Your task to perform on an android device: see creations saved in the google photos Image 0: 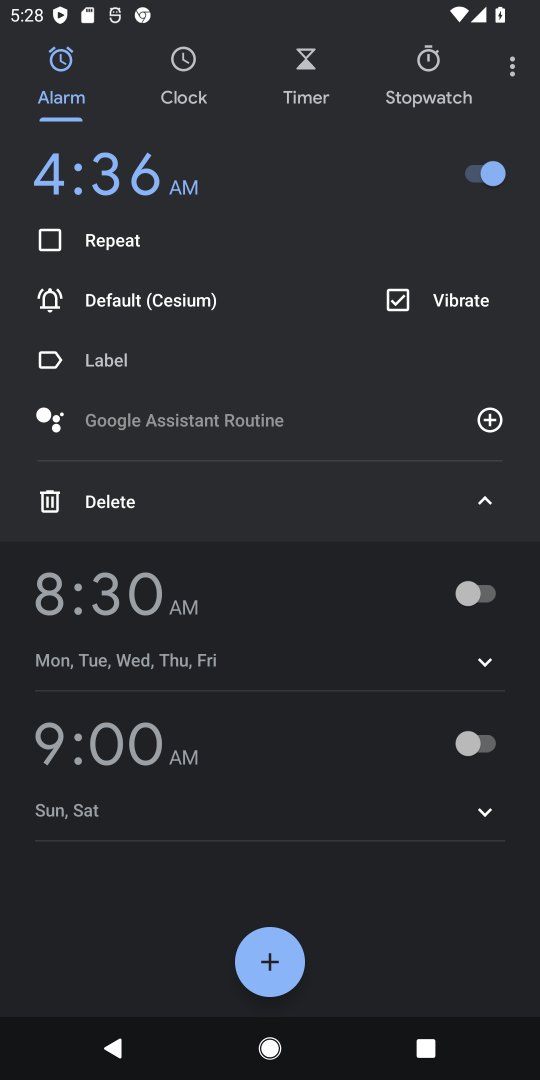
Step 0: press home button
Your task to perform on an android device: see creations saved in the google photos Image 1: 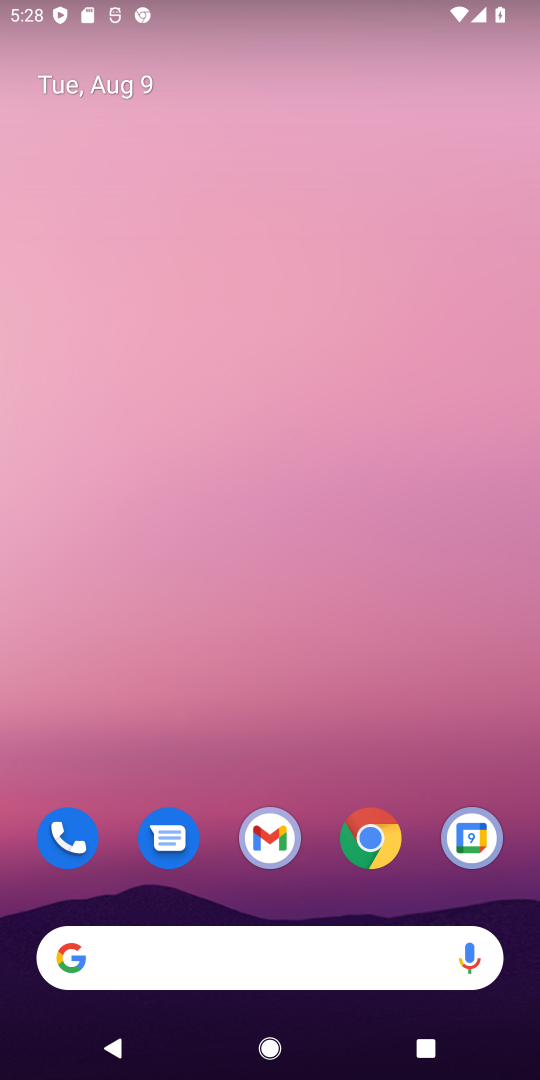
Step 1: drag from (411, 781) to (334, 103)
Your task to perform on an android device: see creations saved in the google photos Image 2: 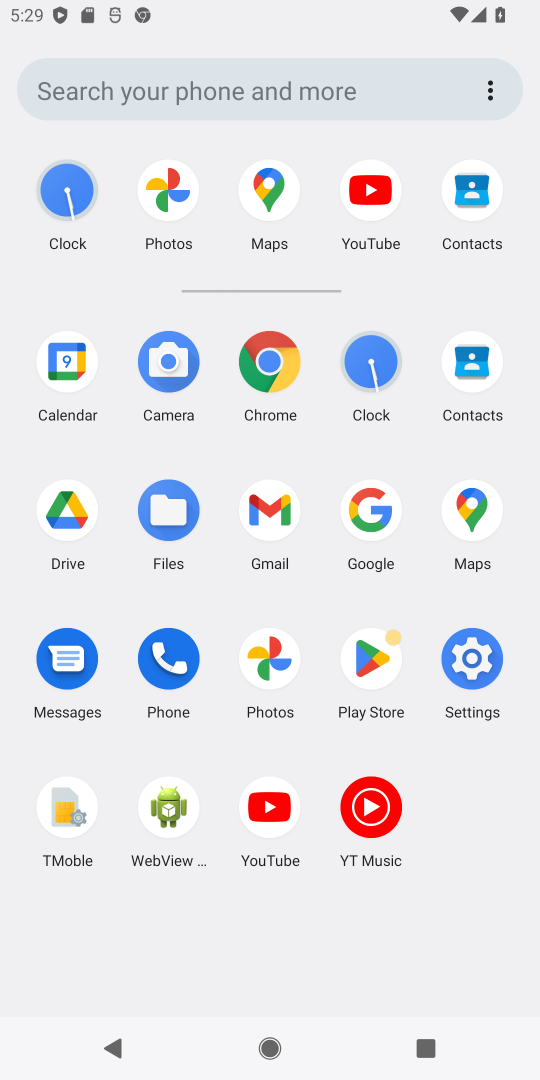
Step 2: click (174, 206)
Your task to perform on an android device: see creations saved in the google photos Image 3: 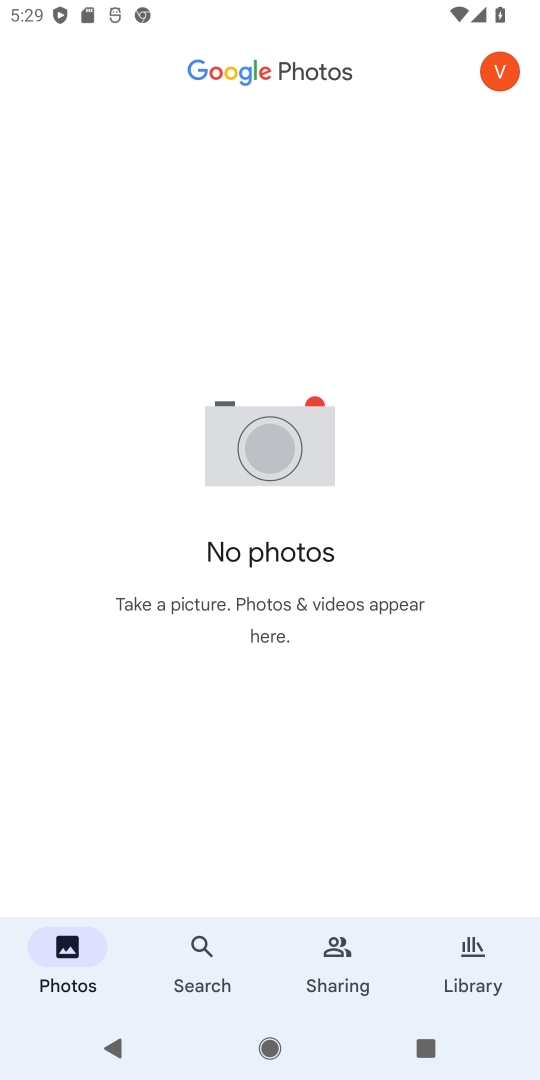
Step 3: click (214, 967)
Your task to perform on an android device: see creations saved in the google photos Image 4: 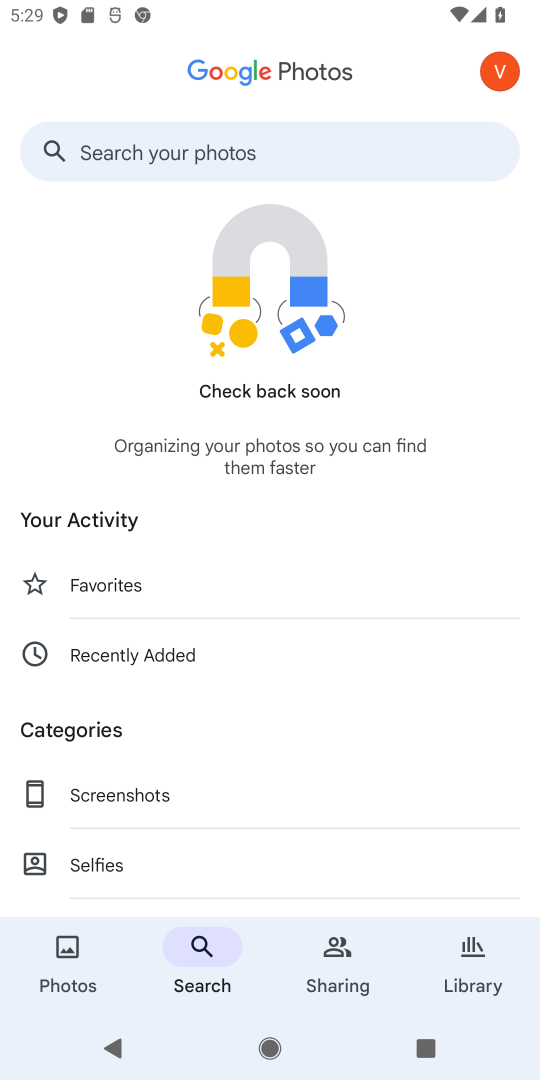
Step 4: drag from (232, 904) to (232, 420)
Your task to perform on an android device: see creations saved in the google photos Image 5: 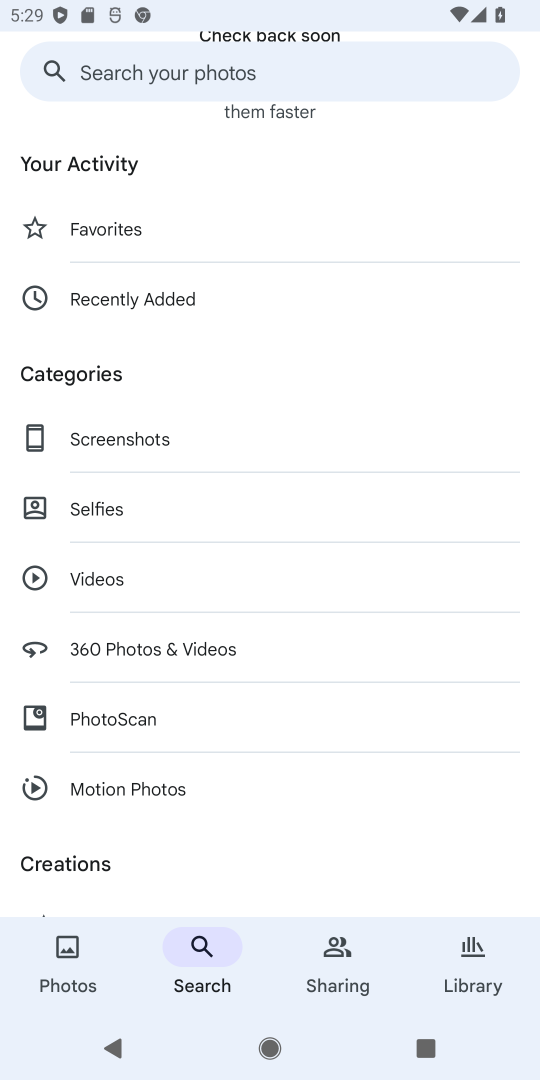
Step 5: click (272, 875)
Your task to perform on an android device: see creations saved in the google photos Image 6: 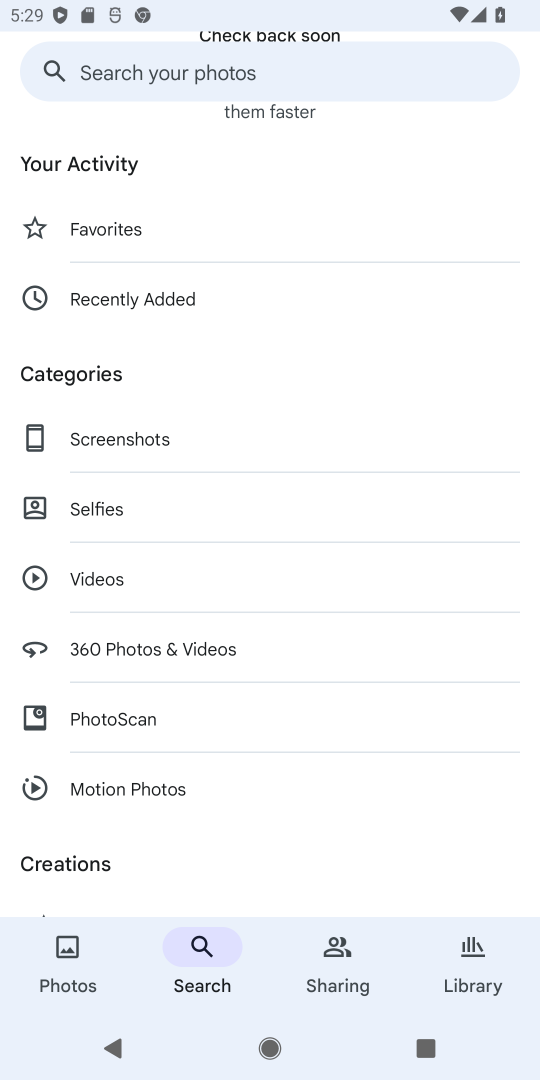
Step 6: drag from (276, 878) to (250, 544)
Your task to perform on an android device: see creations saved in the google photos Image 7: 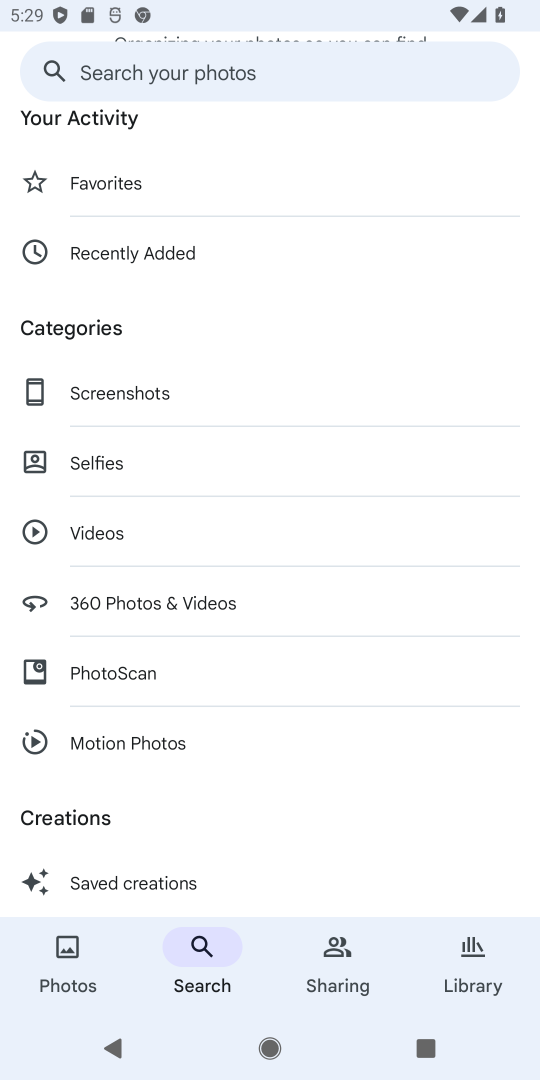
Step 7: click (267, 874)
Your task to perform on an android device: see creations saved in the google photos Image 8: 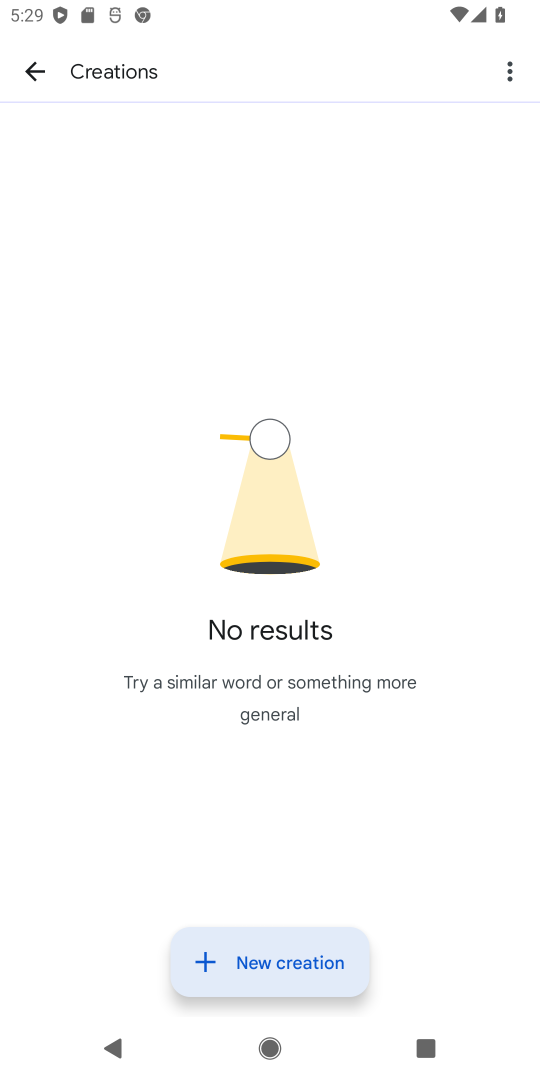
Step 8: task complete